Your task to perform on an android device: turn on the 24-hour format for clock Image 0: 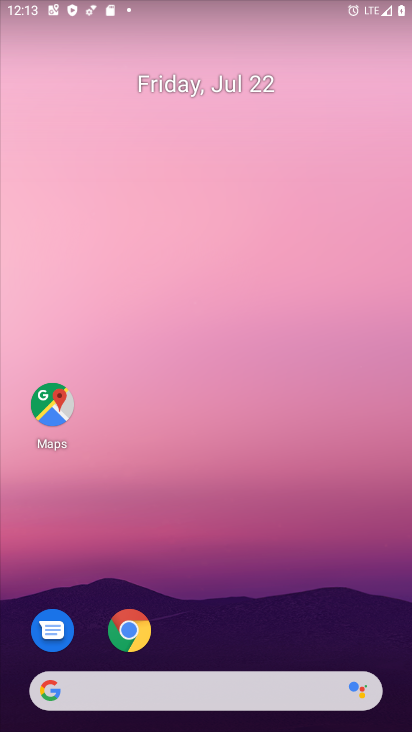
Step 0: drag from (235, 613) to (101, 55)
Your task to perform on an android device: turn on the 24-hour format for clock Image 1: 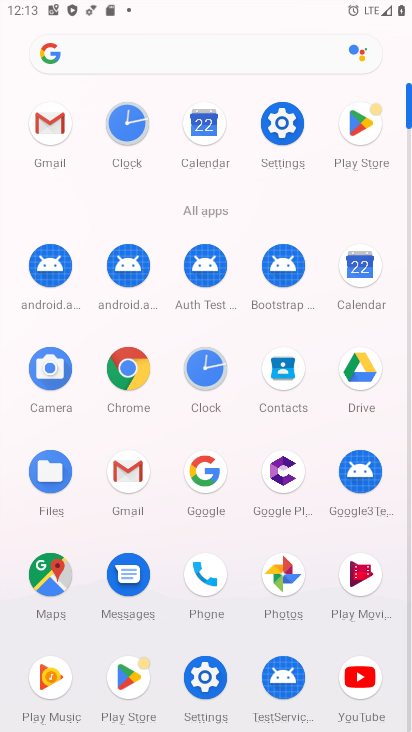
Step 1: click (204, 367)
Your task to perform on an android device: turn on the 24-hour format for clock Image 2: 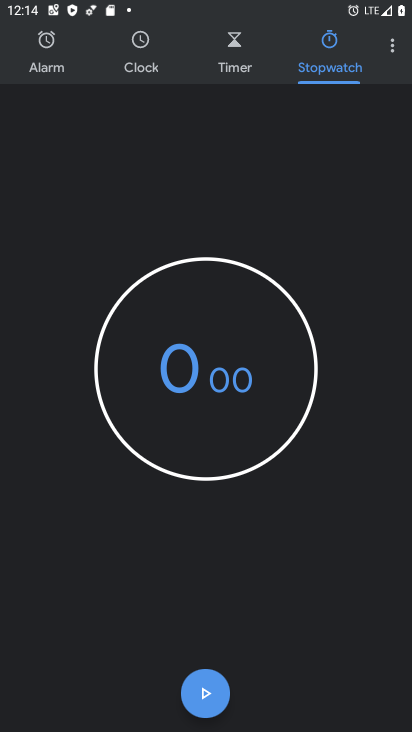
Step 2: click (391, 41)
Your task to perform on an android device: turn on the 24-hour format for clock Image 3: 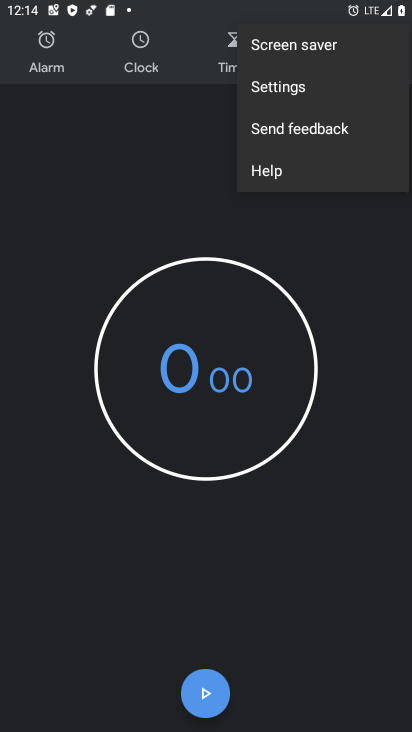
Step 3: click (299, 88)
Your task to perform on an android device: turn on the 24-hour format for clock Image 4: 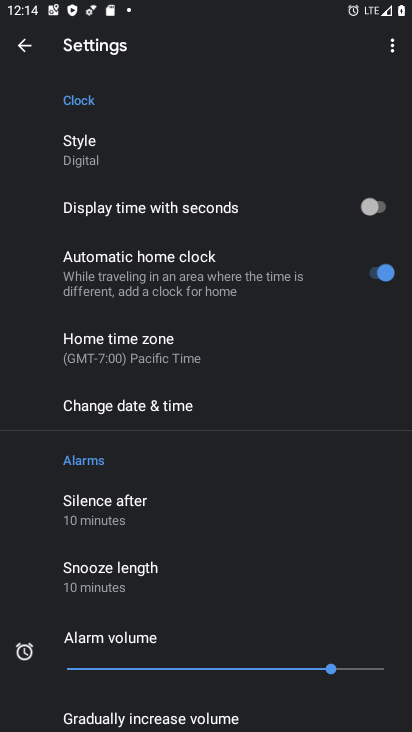
Step 4: click (149, 403)
Your task to perform on an android device: turn on the 24-hour format for clock Image 5: 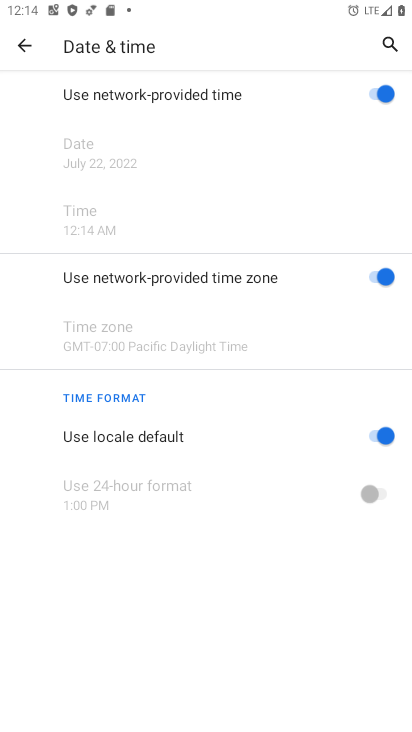
Step 5: click (382, 432)
Your task to perform on an android device: turn on the 24-hour format for clock Image 6: 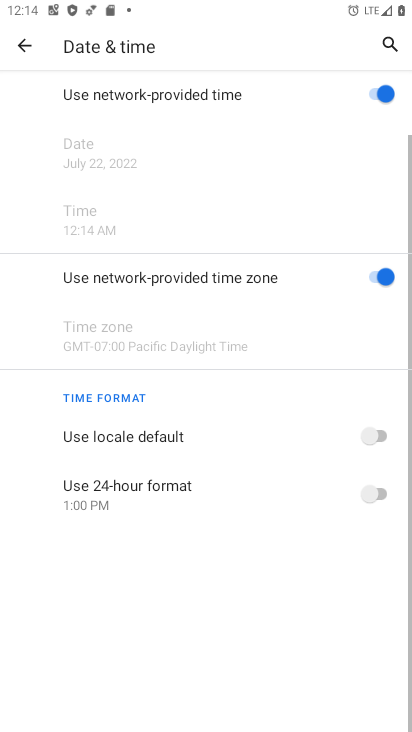
Step 6: click (370, 499)
Your task to perform on an android device: turn on the 24-hour format for clock Image 7: 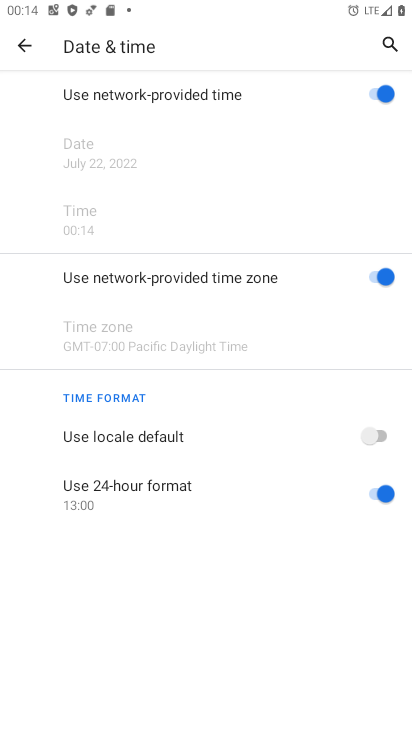
Step 7: task complete